Your task to perform on an android device: Open accessibility settings Image 0: 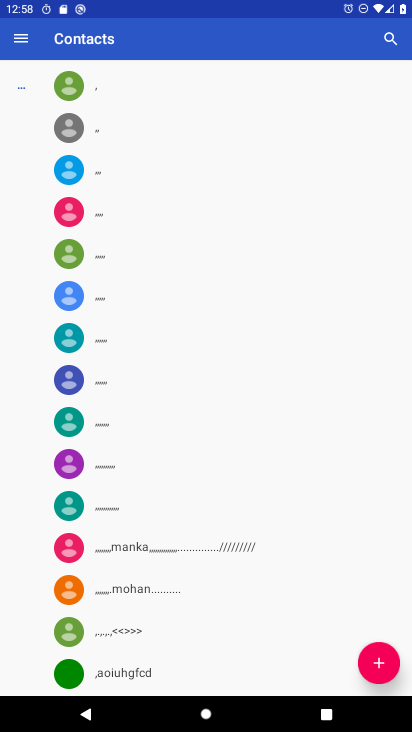
Step 0: press home button
Your task to perform on an android device: Open accessibility settings Image 1: 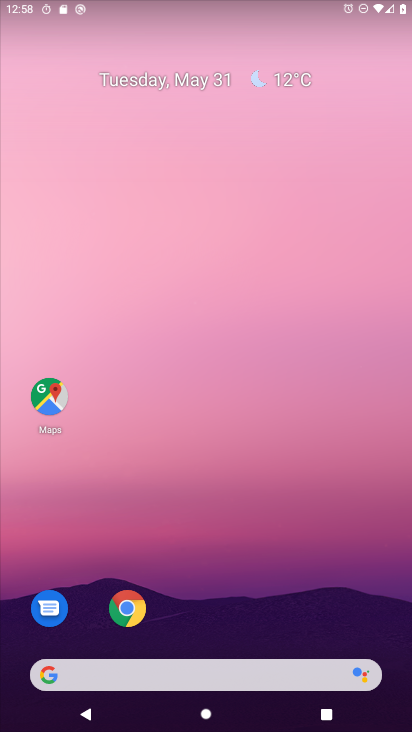
Step 1: drag from (274, 643) to (260, 4)
Your task to perform on an android device: Open accessibility settings Image 2: 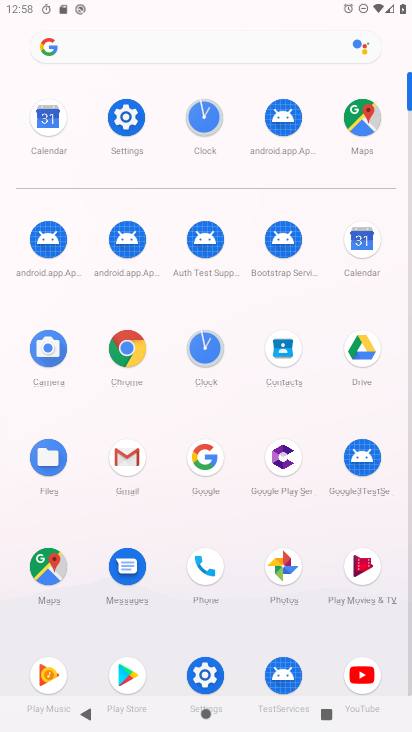
Step 2: click (130, 115)
Your task to perform on an android device: Open accessibility settings Image 3: 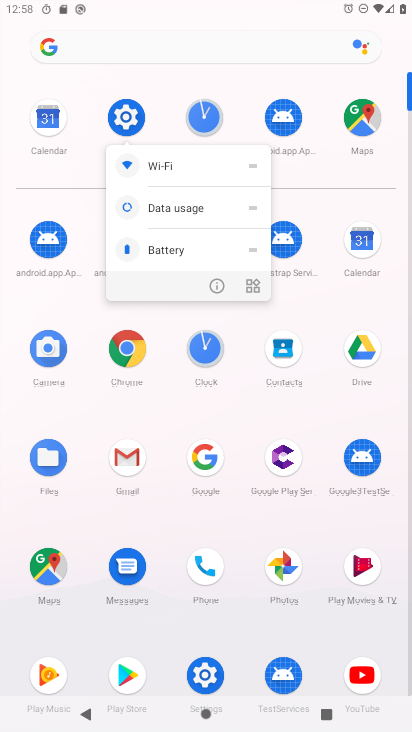
Step 3: click (129, 119)
Your task to perform on an android device: Open accessibility settings Image 4: 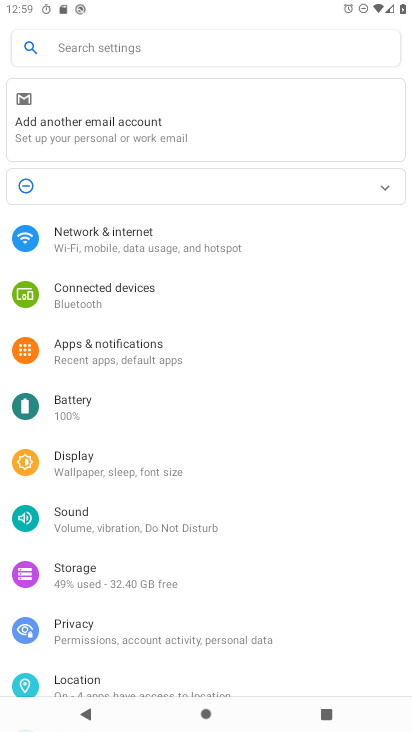
Step 4: drag from (283, 610) to (260, 126)
Your task to perform on an android device: Open accessibility settings Image 5: 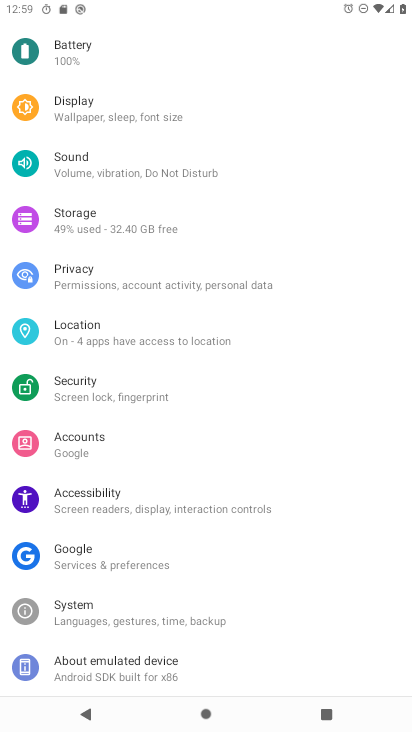
Step 5: click (70, 495)
Your task to perform on an android device: Open accessibility settings Image 6: 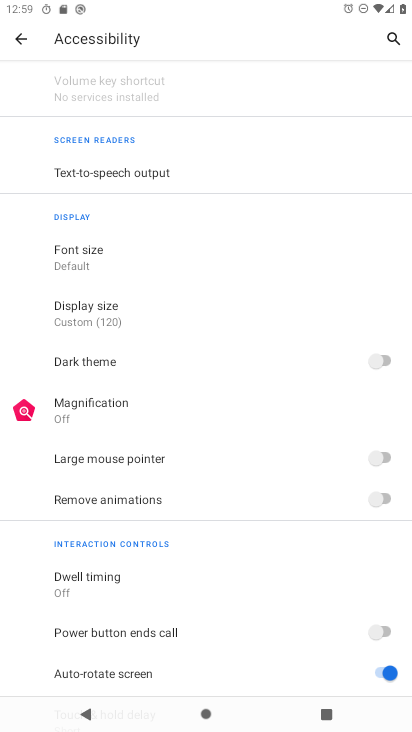
Step 6: task complete